Your task to perform on an android device: Open Yahoo.com Image 0: 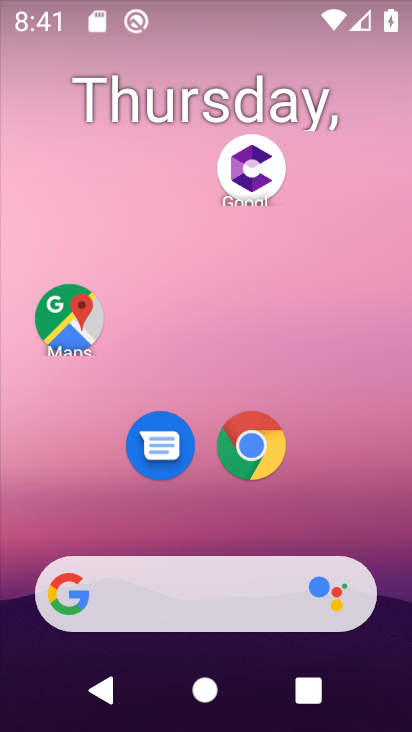
Step 0: click (213, 606)
Your task to perform on an android device: Open Yahoo.com Image 1: 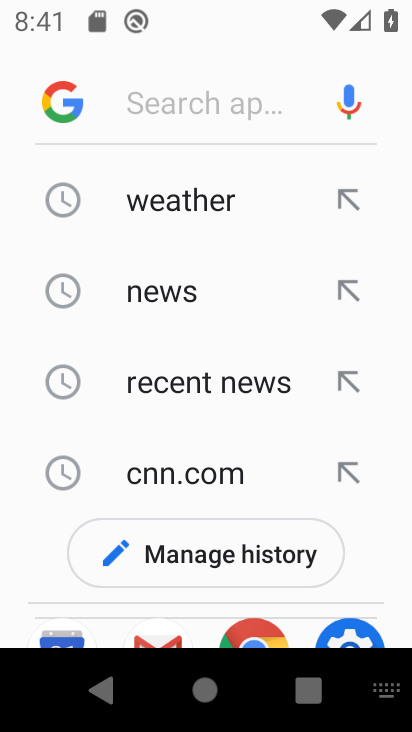
Step 1: type "Yahoo.com"
Your task to perform on an android device: Open Yahoo.com Image 2: 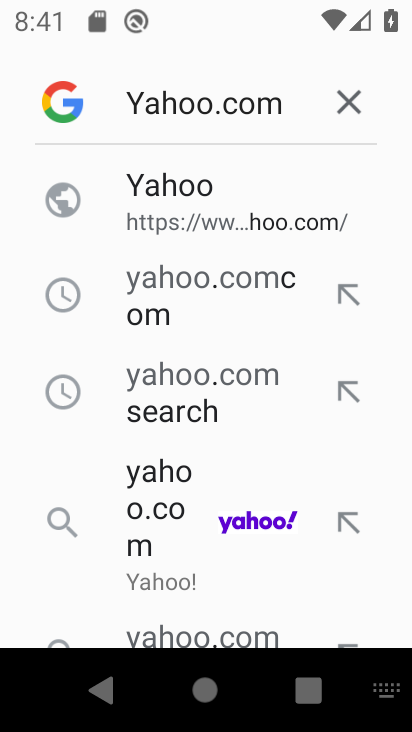
Step 2: click (223, 183)
Your task to perform on an android device: Open Yahoo.com Image 3: 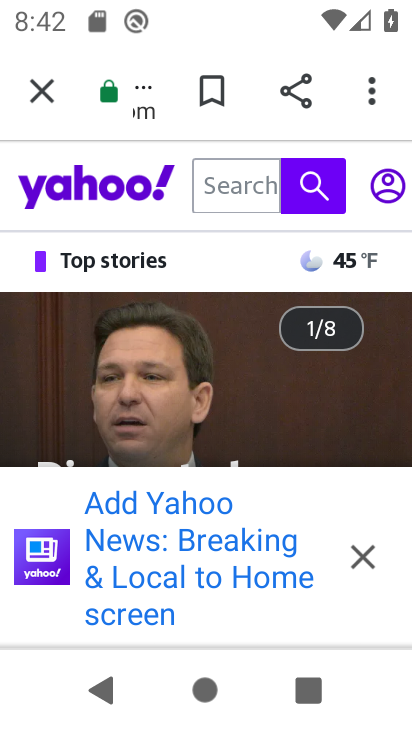
Step 3: task complete